Your task to perform on an android device: open chrome and create a bookmark for the current page Image 0: 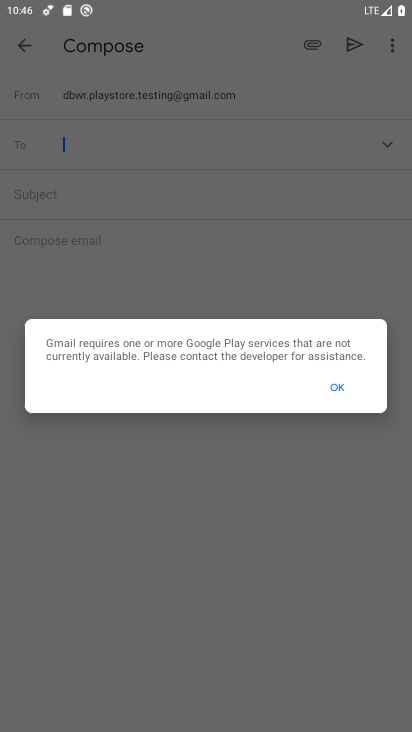
Step 0: press home button
Your task to perform on an android device: open chrome and create a bookmark for the current page Image 1: 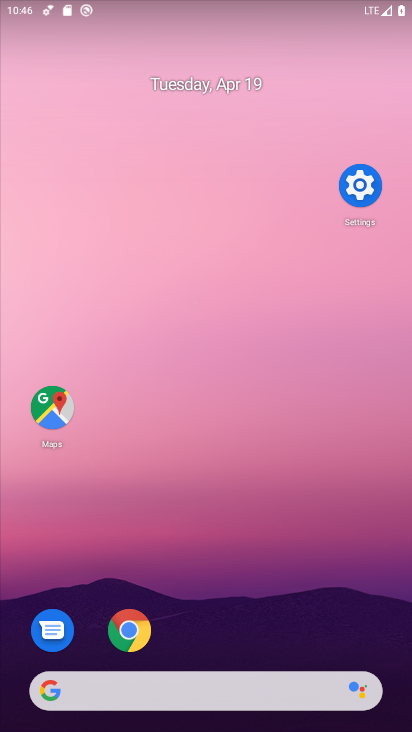
Step 1: drag from (264, 545) to (300, 201)
Your task to perform on an android device: open chrome and create a bookmark for the current page Image 2: 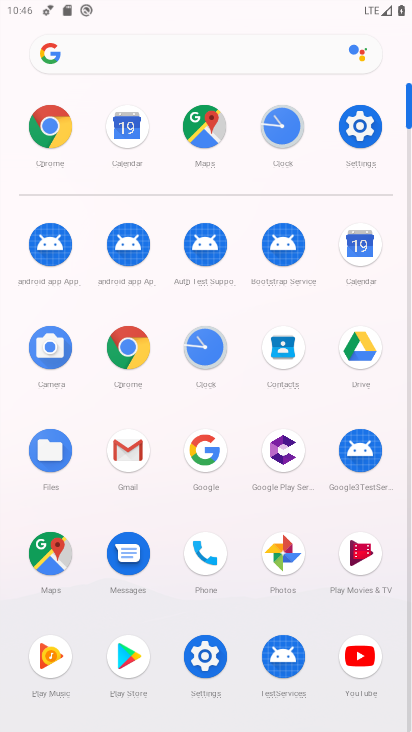
Step 2: click (148, 374)
Your task to perform on an android device: open chrome and create a bookmark for the current page Image 3: 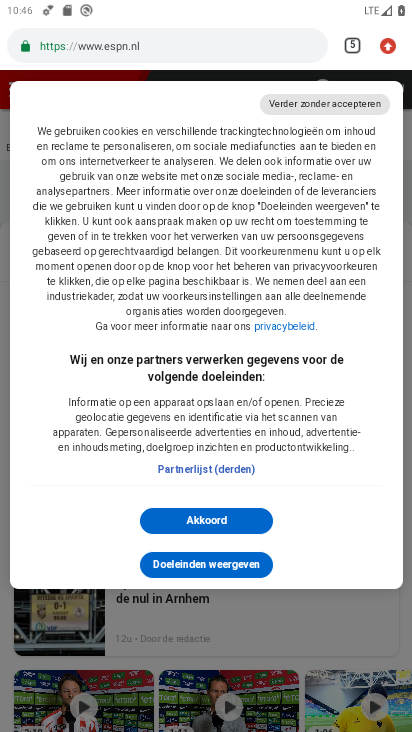
Step 3: click (395, 51)
Your task to perform on an android device: open chrome and create a bookmark for the current page Image 4: 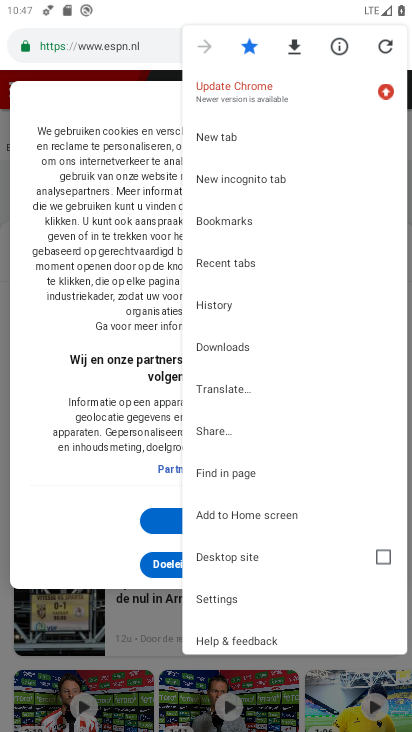
Step 4: task complete